Your task to perform on an android device: turn off picture-in-picture Image 0: 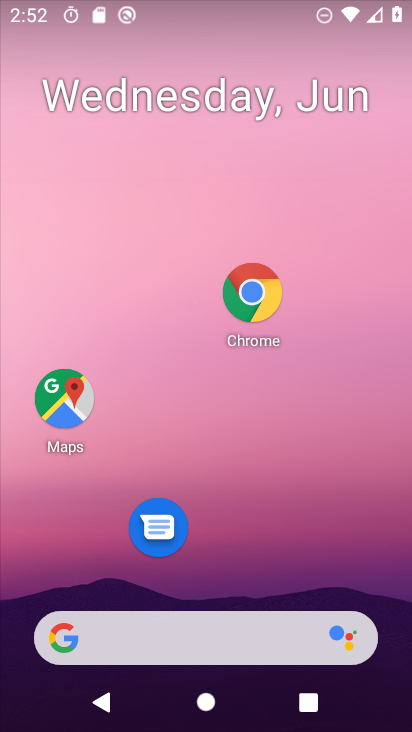
Step 0: drag from (205, 542) to (213, 171)
Your task to perform on an android device: turn off picture-in-picture Image 1: 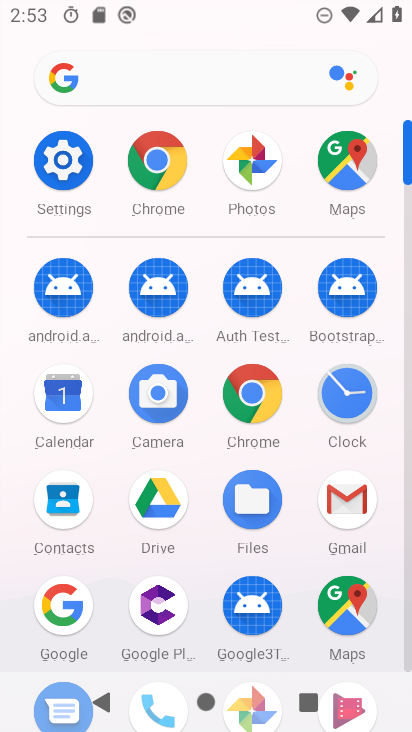
Step 1: click (74, 175)
Your task to perform on an android device: turn off picture-in-picture Image 2: 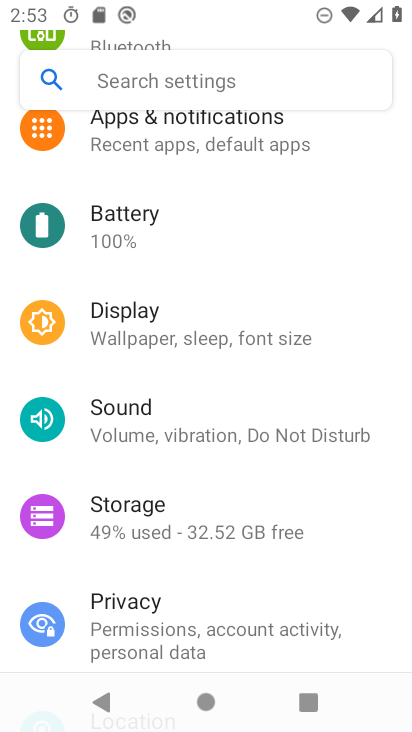
Step 2: drag from (190, 372) to (209, 618)
Your task to perform on an android device: turn off picture-in-picture Image 3: 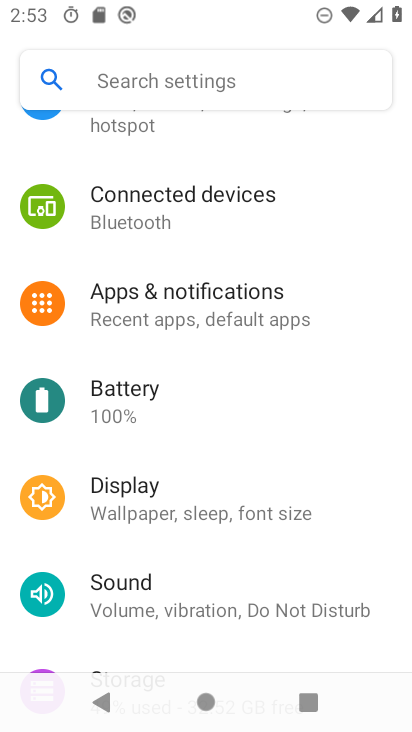
Step 3: click (210, 306)
Your task to perform on an android device: turn off picture-in-picture Image 4: 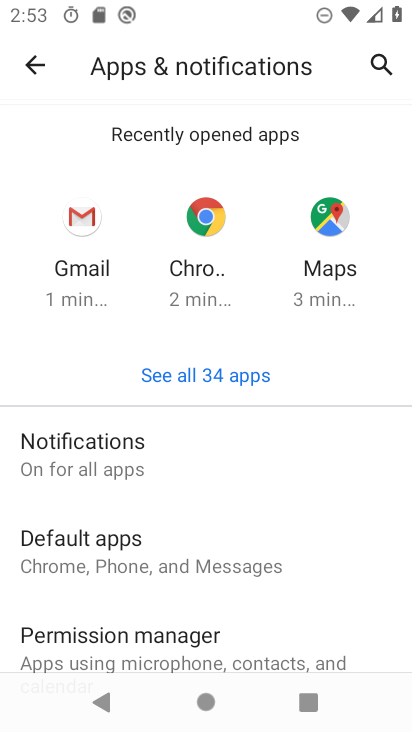
Step 4: drag from (262, 598) to (301, 165)
Your task to perform on an android device: turn off picture-in-picture Image 5: 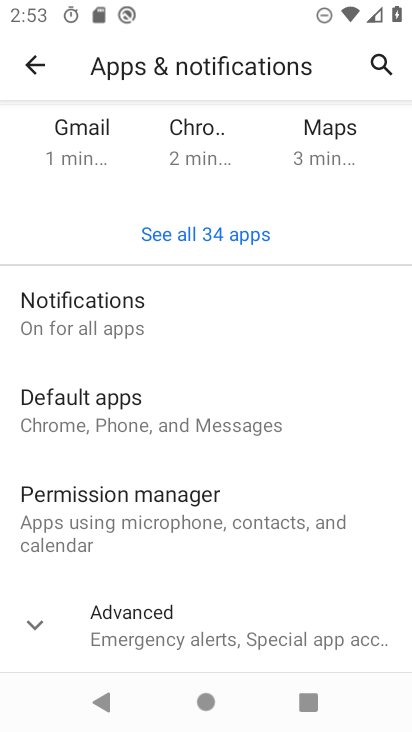
Step 5: drag from (264, 419) to (278, 193)
Your task to perform on an android device: turn off picture-in-picture Image 6: 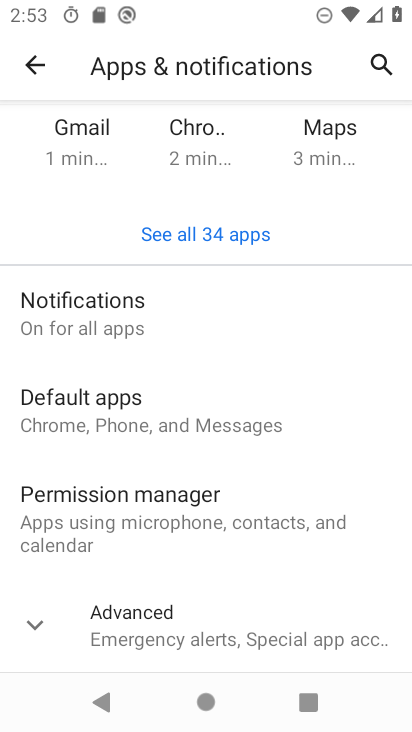
Step 6: click (228, 627)
Your task to perform on an android device: turn off picture-in-picture Image 7: 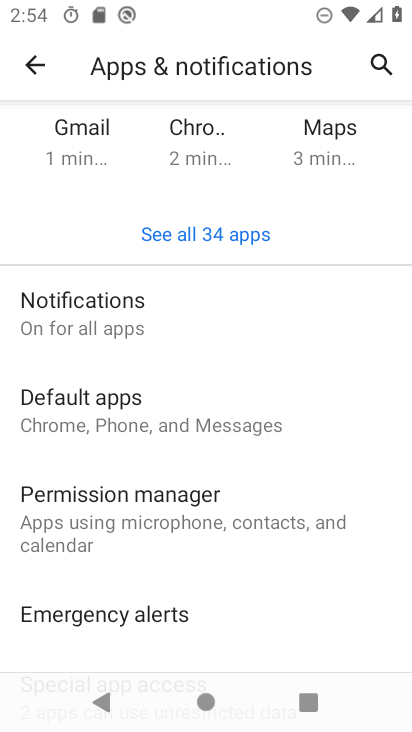
Step 7: drag from (164, 456) to (179, 365)
Your task to perform on an android device: turn off picture-in-picture Image 8: 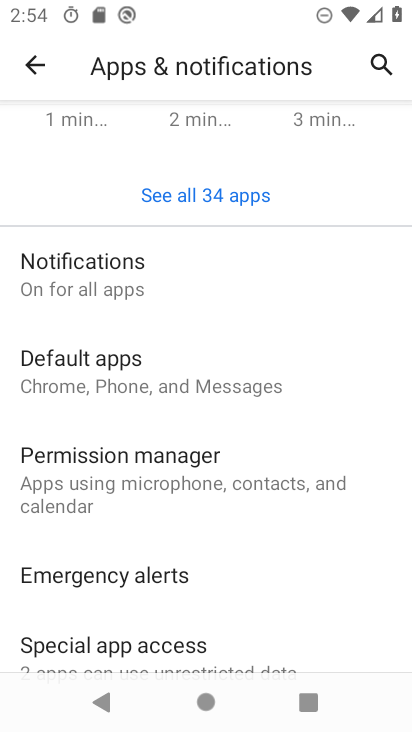
Step 8: drag from (197, 406) to (234, 156)
Your task to perform on an android device: turn off picture-in-picture Image 9: 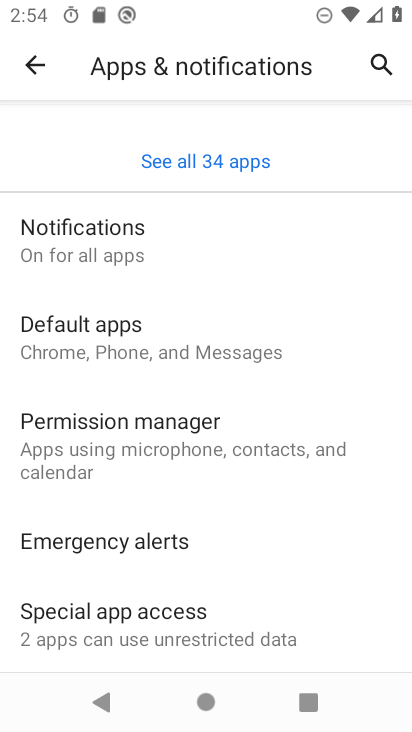
Step 9: click (191, 620)
Your task to perform on an android device: turn off picture-in-picture Image 10: 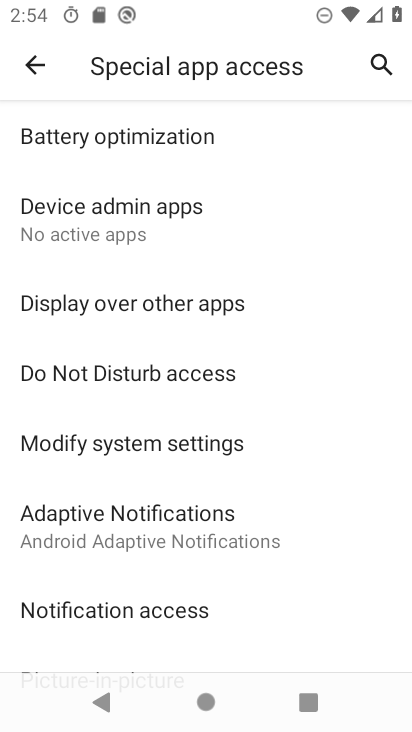
Step 10: drag from (189, 424) to (253, 4)
Your task to perform on an android device: turn off picture-in-picture Image 11: 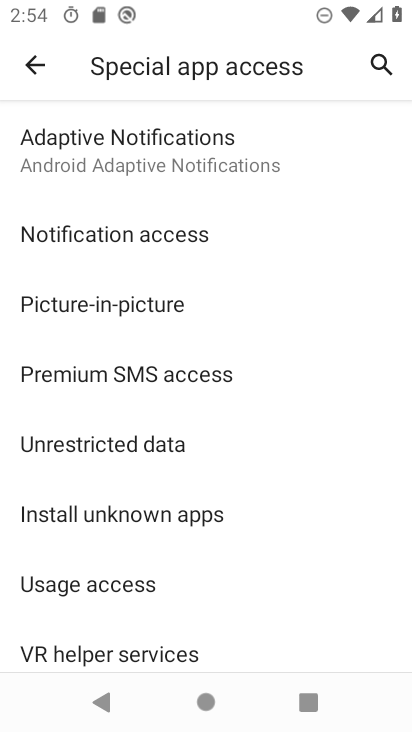
Step 11: click (162, 296)
Your task to perform on an android device: turn off picture-in-picture Image 12: 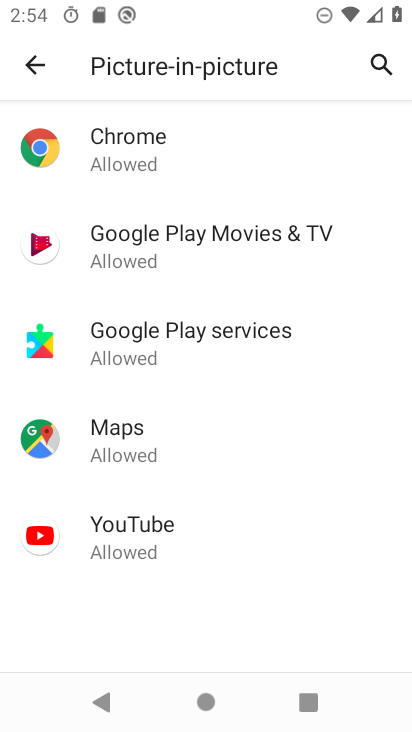
Step 12: click (197, 128)
Your task to perform on an android device: turn off picture-in-picture Image 13: 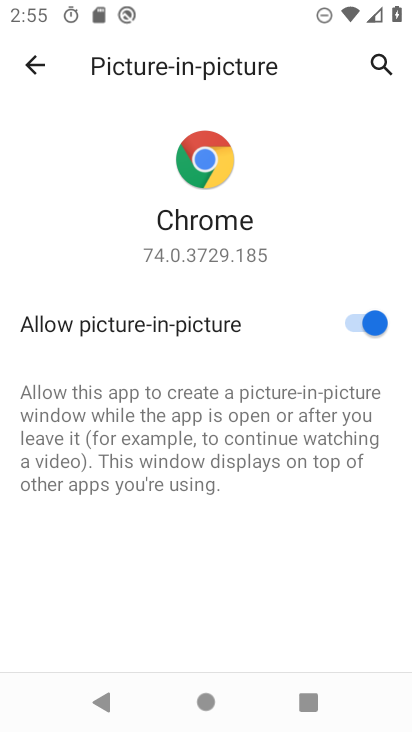
Step 13: click (356, 327)
Your task to perform on an android device: turn off picture-in-picture Image 14: 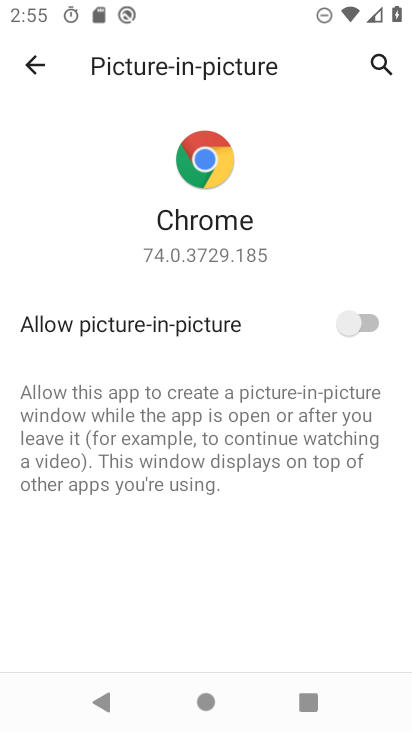
Step 14: task complete